Your task to perform on an android device: turn off sleep mode Image 0: 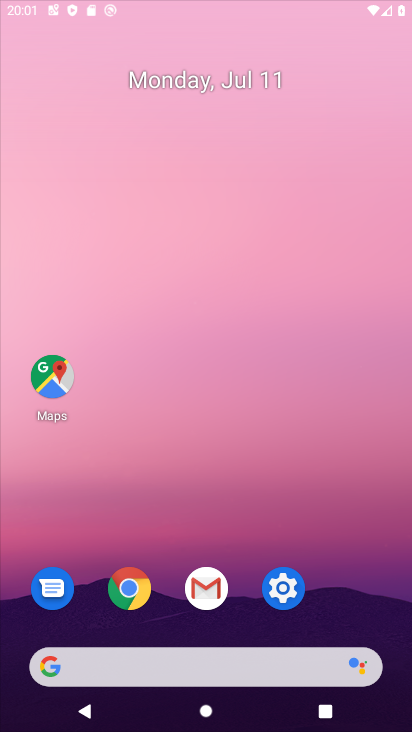
Step 0: press home button
Your task to perform on an android device: turn off sleep mode Image 1: 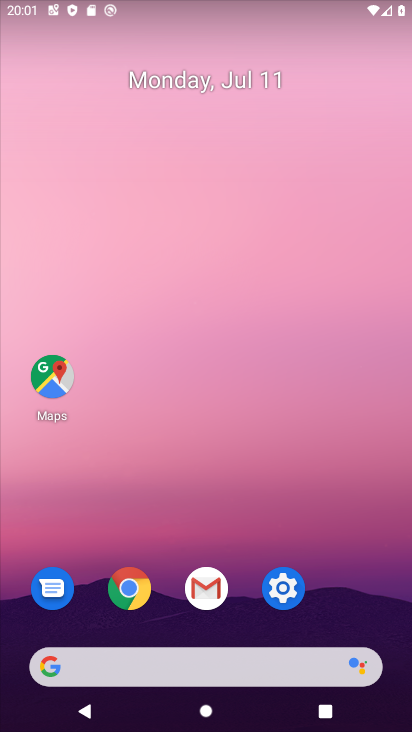
Step 1: click (297, 592)
Your task to perform on an android device: turn off sleep mode Image 2: 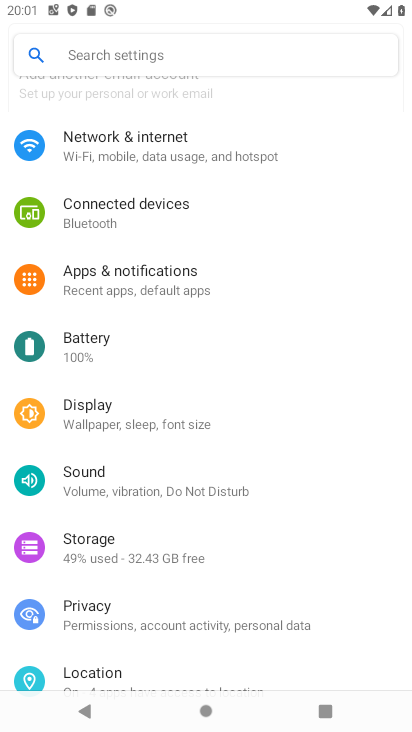
Step 2: click (128, 57)
Your task to perform on an android device: turn off sleep mode Image 3: 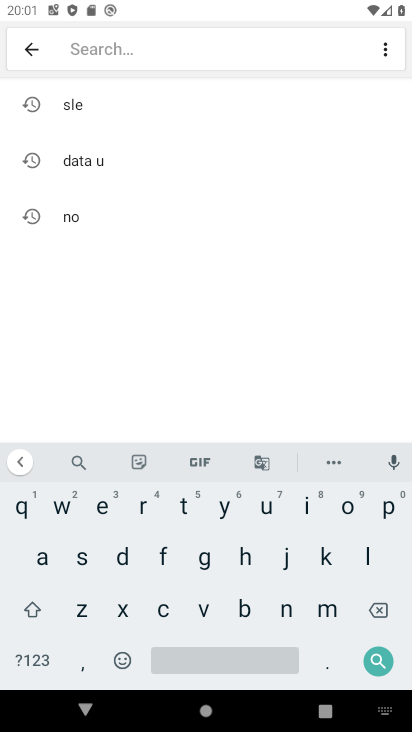
Step 3: click (87, 111)
Your task to perform on an android device: turn off sleep mode Image 4: 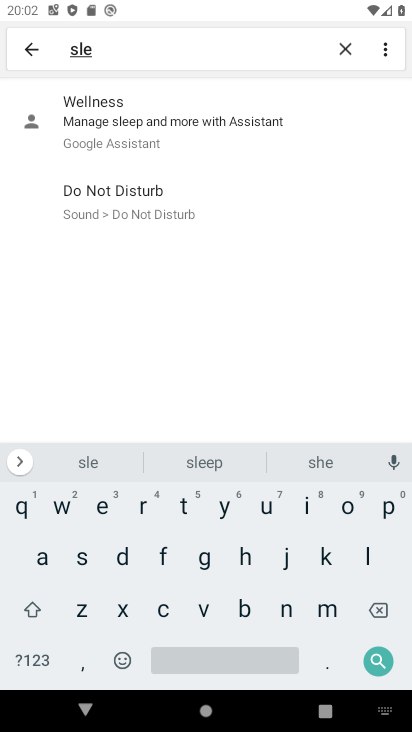
Step 4: click (100, 203)
Your task to perform on an android device: turn off sleep mode Image 5: 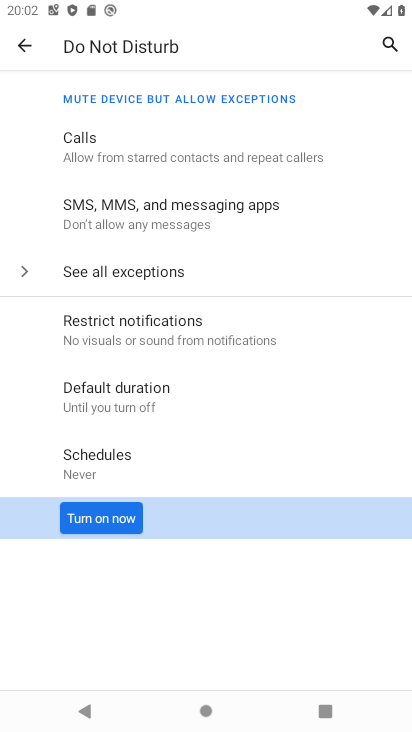
Step 5: click (101, 500)
Your task to perform on an android device: turn off sleep mode Image 6: 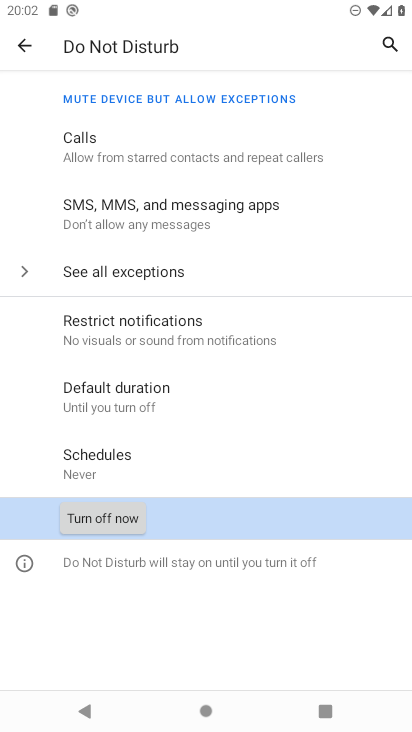
Step 6: click (103, 527)
Your task to perform on an android device: turn off sleep mode Image 7: 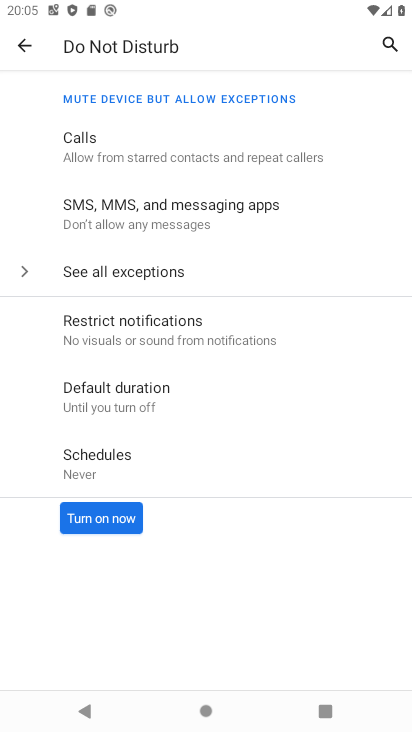
Step 7: task complete